Your task to perform on an android device: turn off sleep mode Image 0: 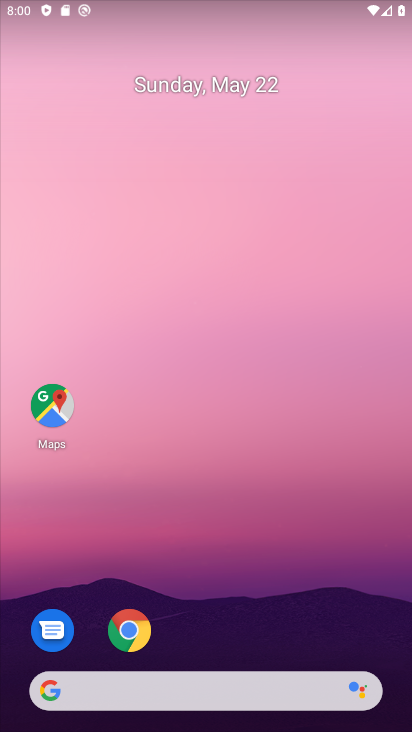
Step 0: drag from (244, 644) to (272, 211)
Your task to perform on an android device: turn off sleep mode Image 1: 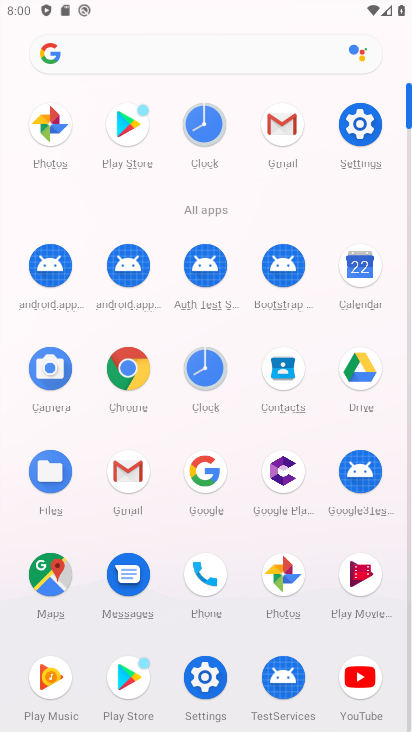
Step 1: click (356, 133)
Your task to perform on an android device: turn off sleep mode Image 2: 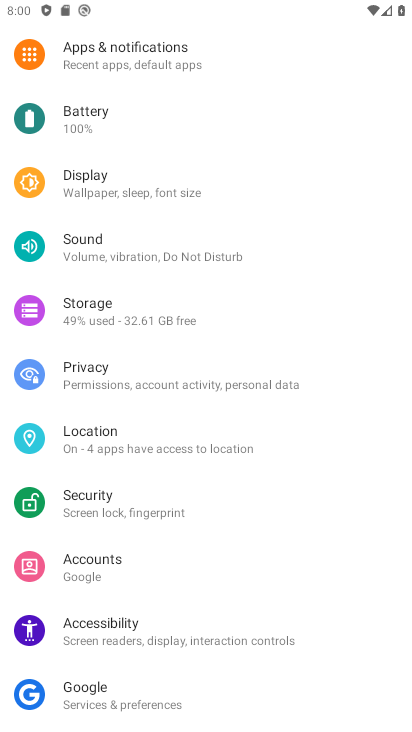
Step 2: drag from (136, 589) to (120, 483)
Your task to perform on an android device: turn off sleep mode Image 3: 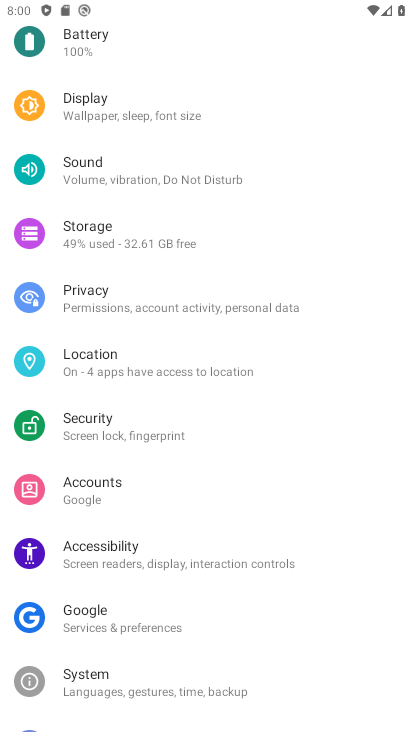
Step 3: click (154, 124)
Your task to perform on an android device: turn off sleep mode Image 4: 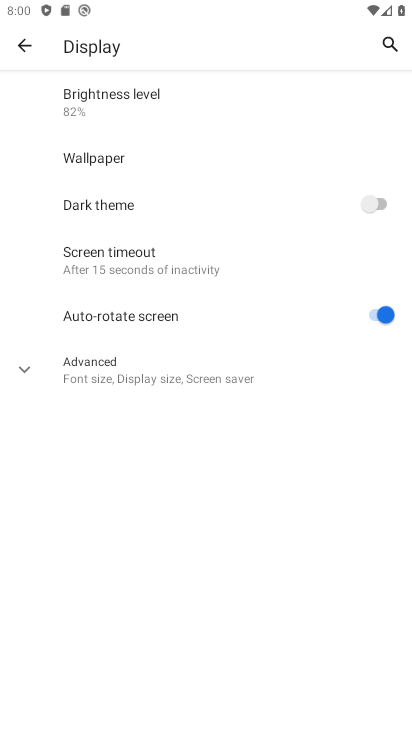
Step 4: click (165, 286)
Your task to perform on an android device: turn off sleep mode Image 5: 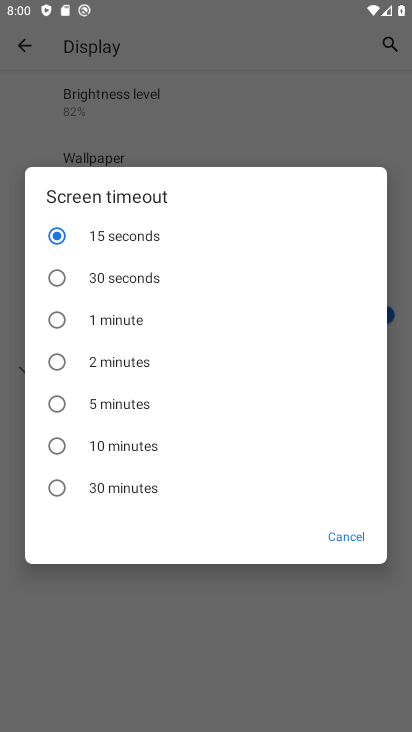
Step 5: task complete